Your task to perform on an android device: turn off wifi Image 0: 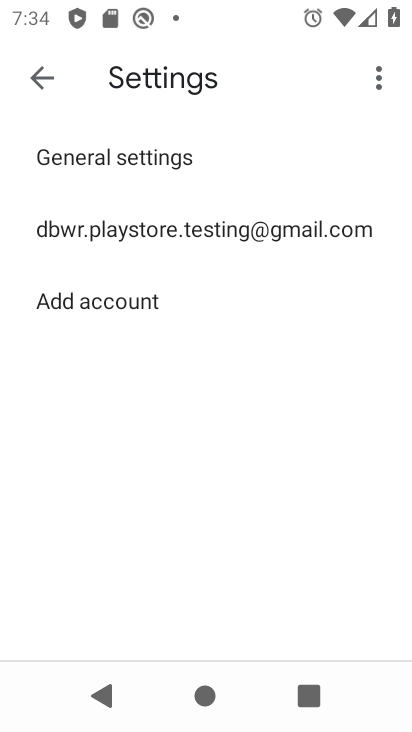
Step 0: press home button
Your task to perform on an android device: turn off wifi Image 1: 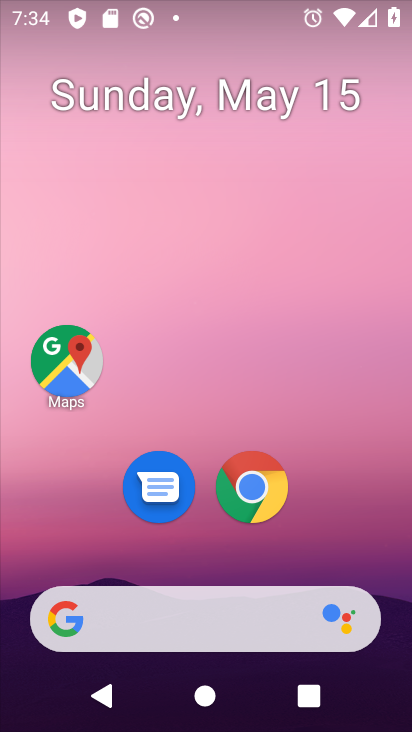
Step 1: drag from (338, 536) to (347, 207)
Your task to perform on an android device: turn off wifi Image 2: 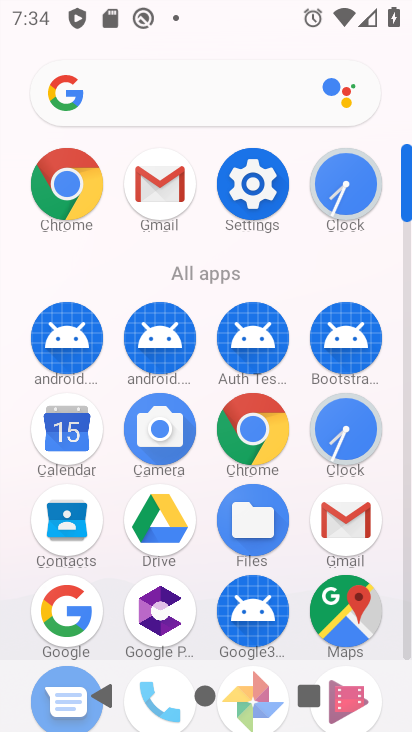
Step 2: click (251, 173)
Your task to perform on an android device: turn off wifi Image 3: 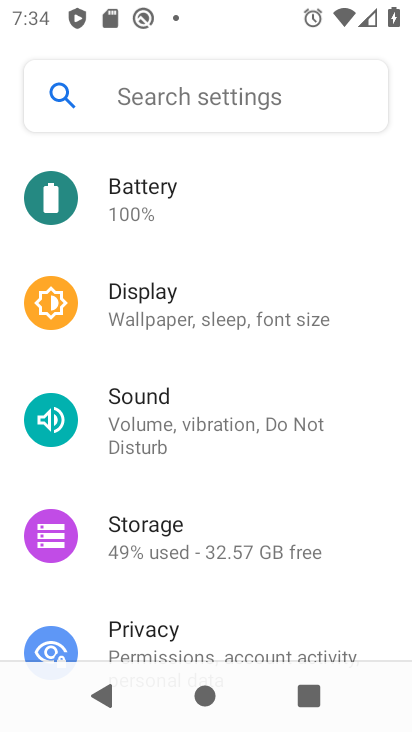
Step 3: drag from (265, 214) to (232, 540)
Your task to perform on an android device: turn off wifi Image 4: 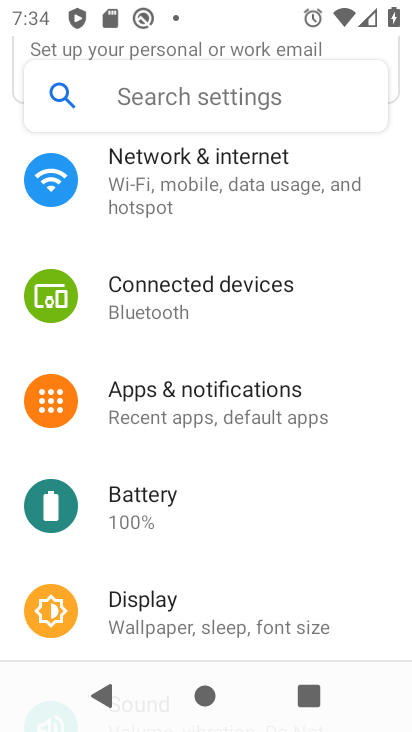
Step 4: drag from (226, 205) to (219, 526)
Your task to perform on an android device: turn off wifi Image 5: 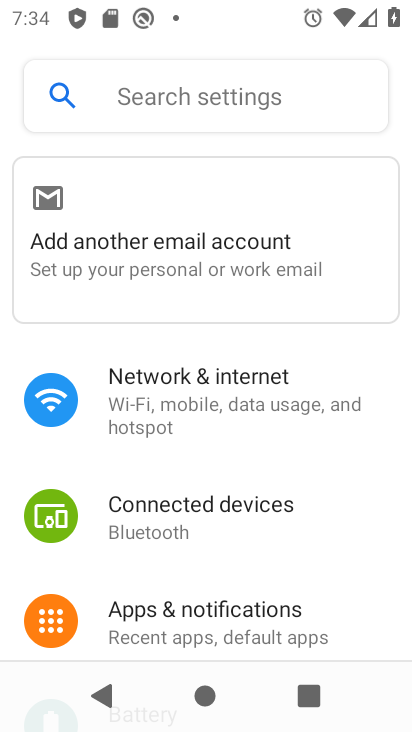
Step 5: click (202, 398)
Your task to perform on an android device: turn off wifi Image 6: 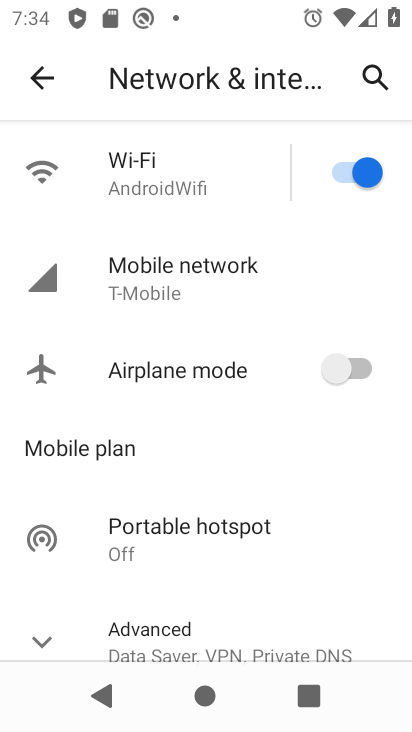
Step 6: click (358, 174)
Your task to perform on an android device: turn off wifi Image 7: 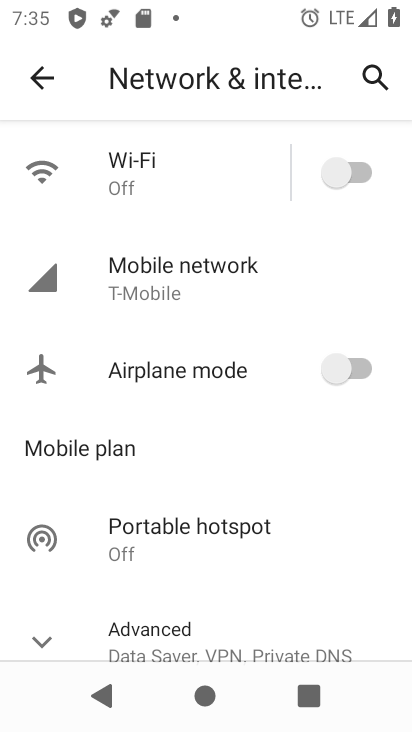
Step 7: task complete